Your task to perform on an android device: all mails in gmail Image 0: 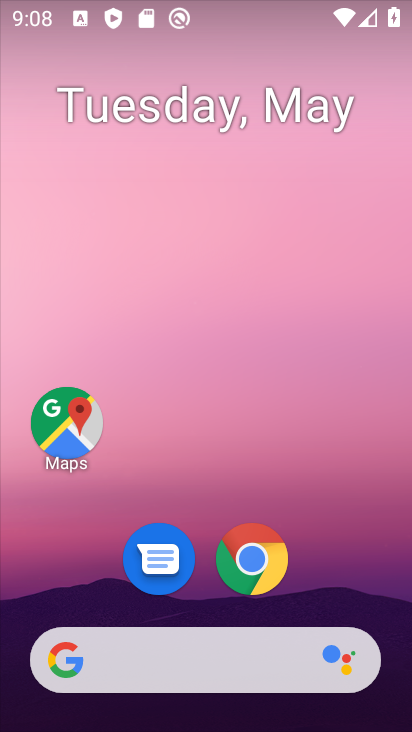
Step 0: drag from (204, 638) to (184, 6)
Your task to perform on an android device: all mails in gmail Image 1: 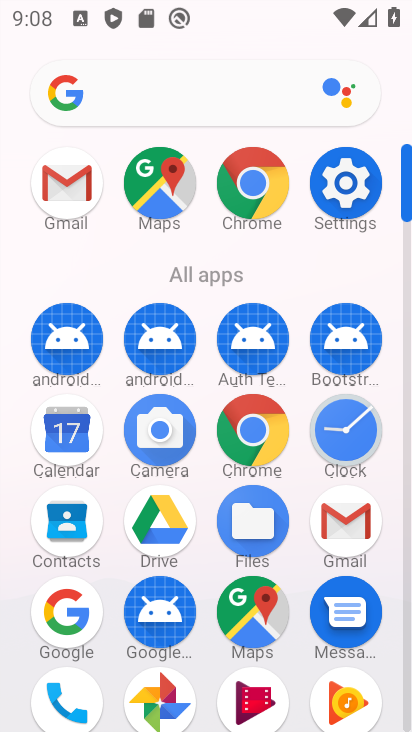
Step 1: click (71, 191)
Your task to perform on an android device: all mails in gmail Image 2: 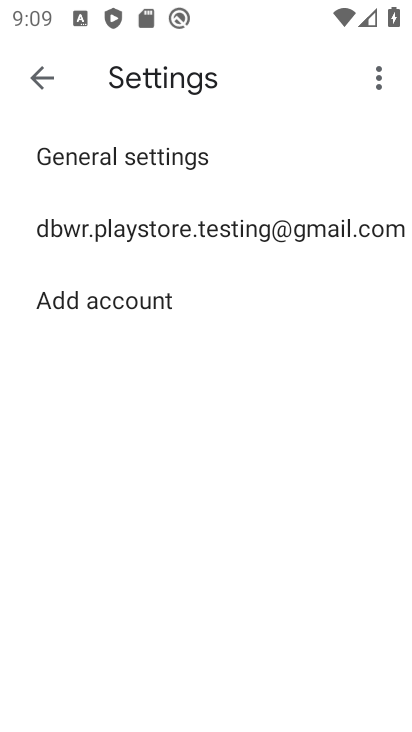
Step 2: click (52, 88)
Your task to perform on an android device: all mails in gmail Image 3: 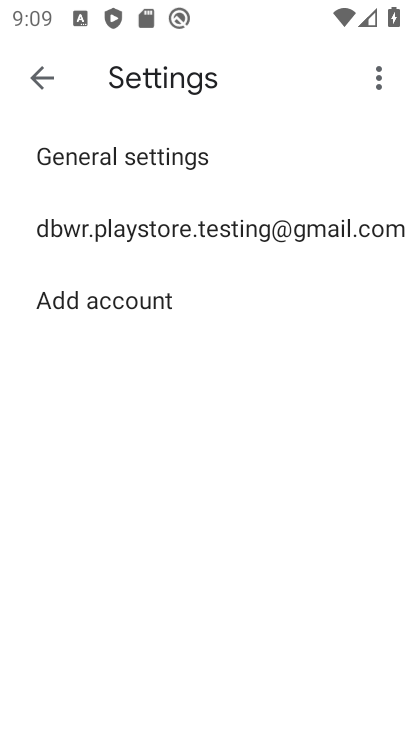
Step 3: click (52, 88)
Your task to perform on an android device: all mails in gmail Image 4: 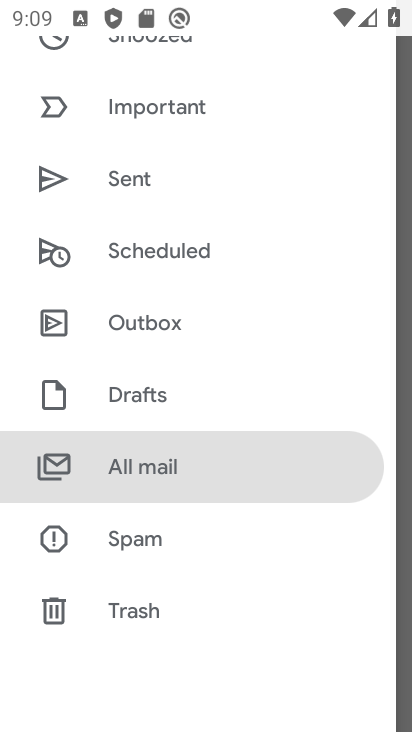
Step 4: click (125, 455)
Your task to perform on an android device: all mails in gmail Image 5: 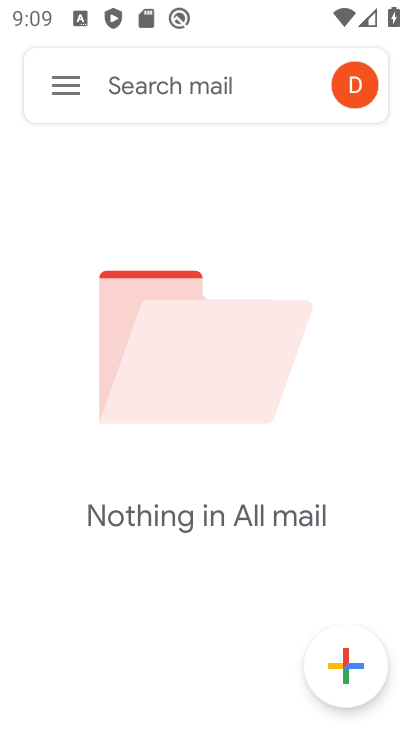
Step 5: task complete